Your task to perform on an android device: delete browsing data in the chrome app Image 0: 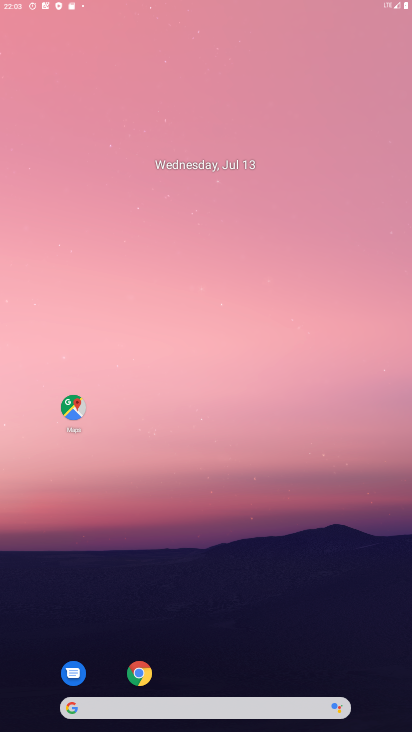
Step 0: drag from (219, 628) to (301, 139)
Your task to perform on an android device: delete browsing data in the chrome app Image 1: 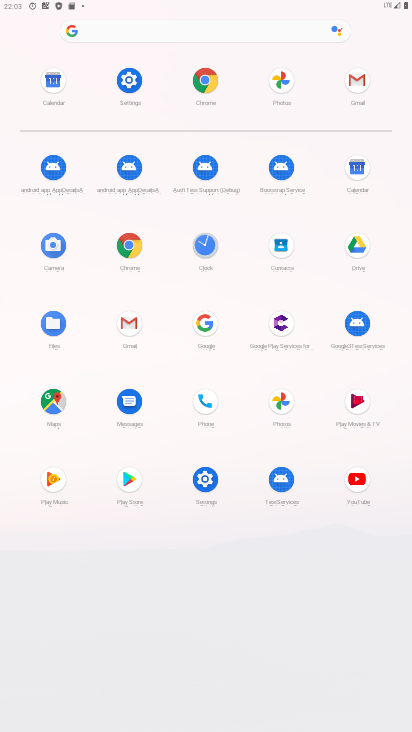
Step 1: click (133, 241)
Your task to perform on an android device: delete browsing data in the chrome app Image 2: 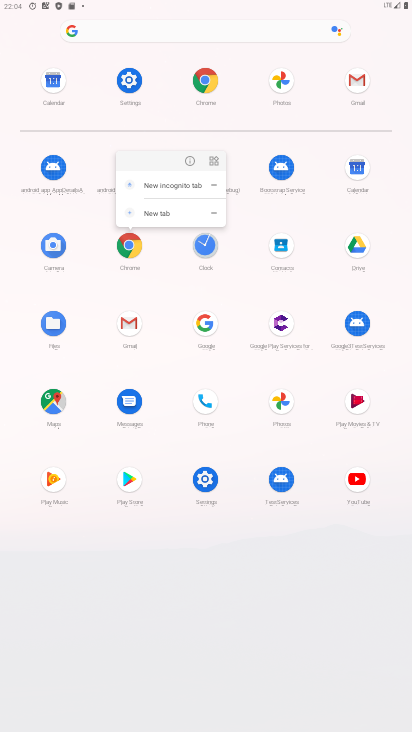
Step 2: click (180, 159)
Your task to perform on an android device: delete browsing data in the chrome app Image 3: 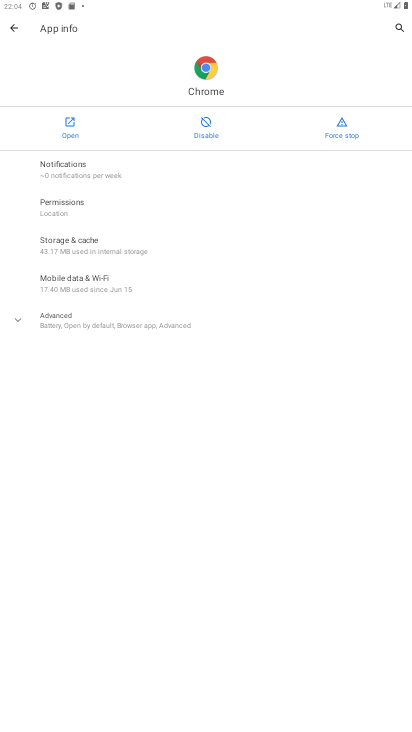
Step 3: click (68, 122)
Your task to perform on an android device: delete browsing data in the chrome app Image 4: 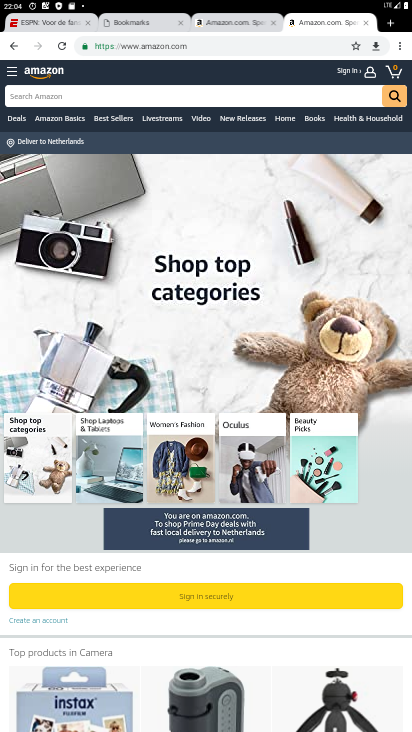
Step 4: click (398, 42)
Your task to perform on an android device: delete browsing data in the chrome app Image 5: 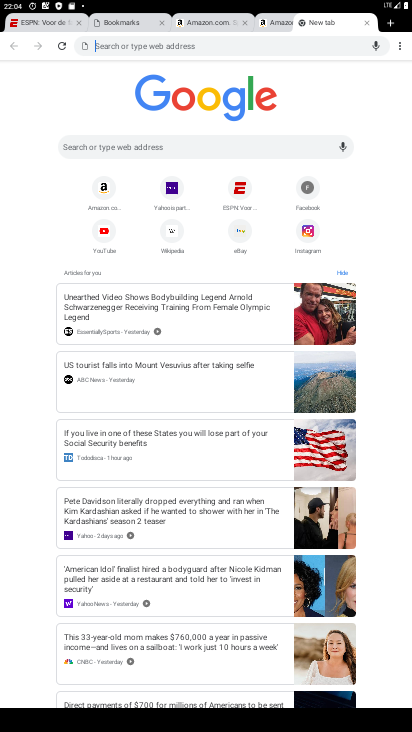
Step 5: click (403, 49)
Your task to perform on an android device: delete browsing data in the chrome app Image 6: 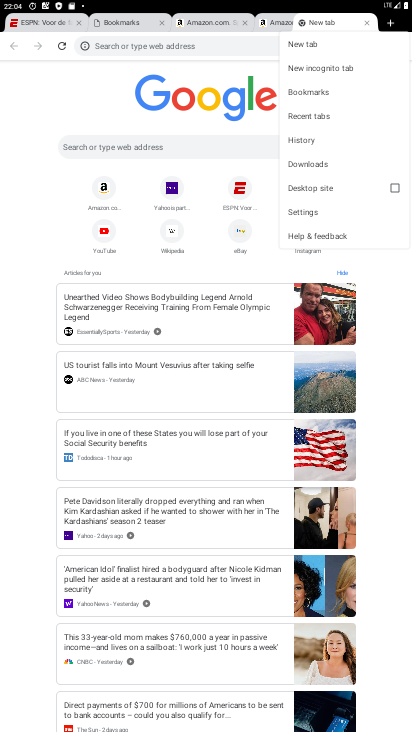
Step 6: click (331, 146)
Your task to perform on an android device: delete browsing data in the chrome app Image 7: 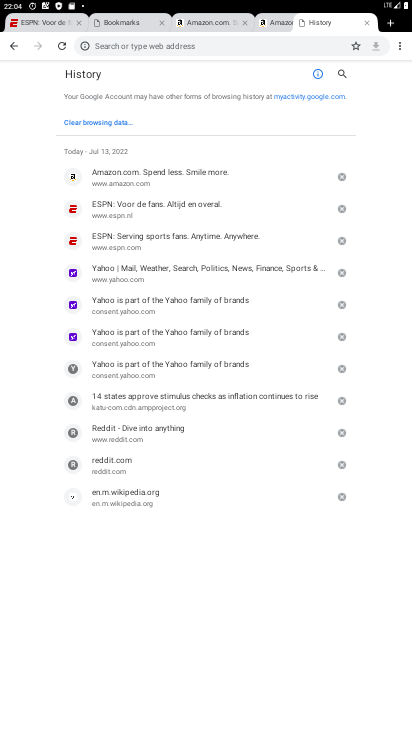
Step 7: click (80, 120)
Your task to perform on an android device: delete browsing data in the chrome app Image 8: 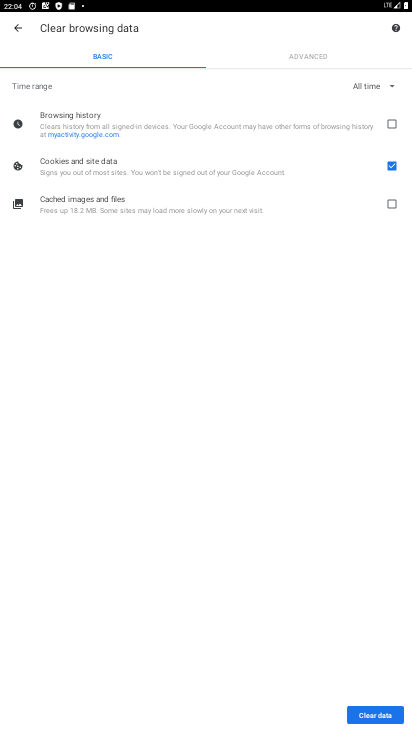
Step 8: click (396, 114)
Your task to perform on an android device: delete browsing data in the chrome app Image 9: 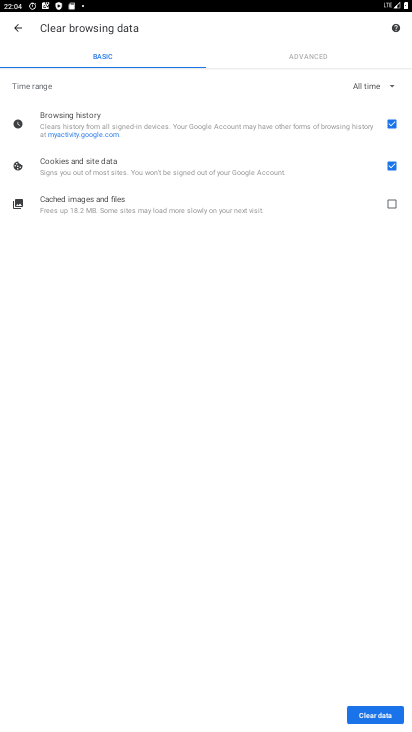
Step 9: click (376, 196)
Your task to perform on an android device: delete browsing data in the chrome app Image 10: 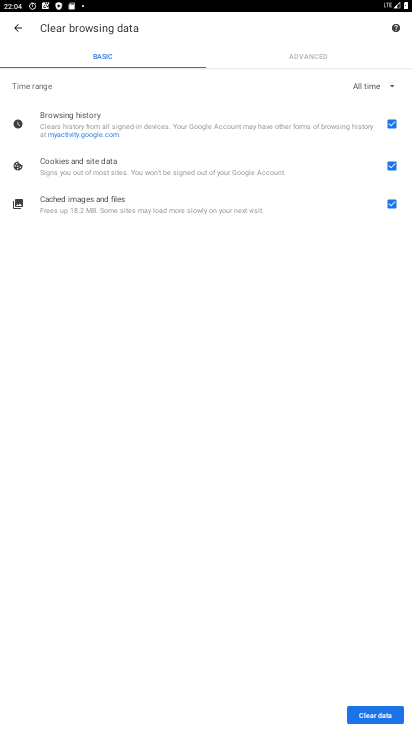
Step 10: click (375, 708)
Your task to perform on an android device: delete browsing data in the chrome app Image 11: 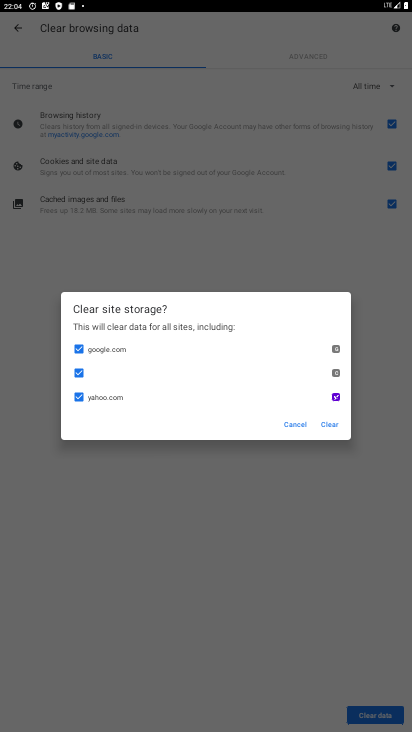
Step 11: click (332, 419)
Your task to perform on an android device: delete browsing data in the chrome app Image 12: 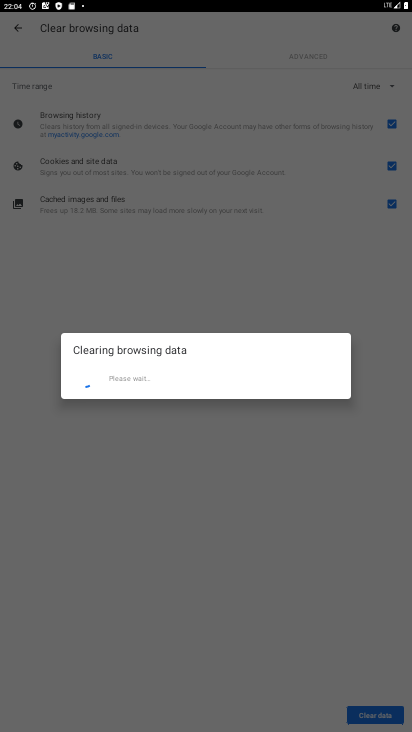
Step 12: task complete